Your task to perform on an android device: Go to wifi settings Image 0: 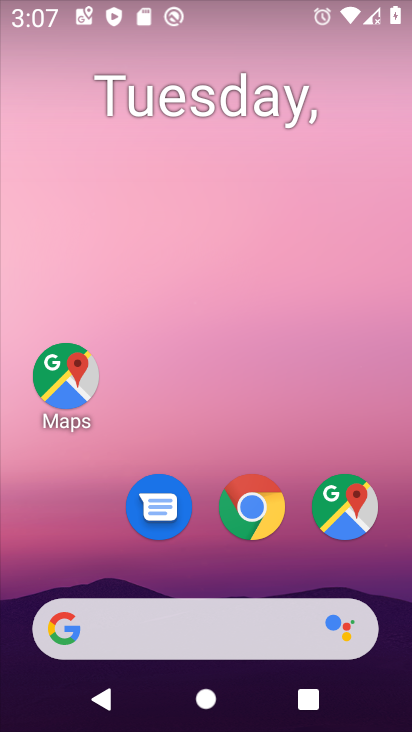
Step 0: drag from (319, 503) to (315, 214)
Your task to perform on an android device: Go to wifi settings Image 1: 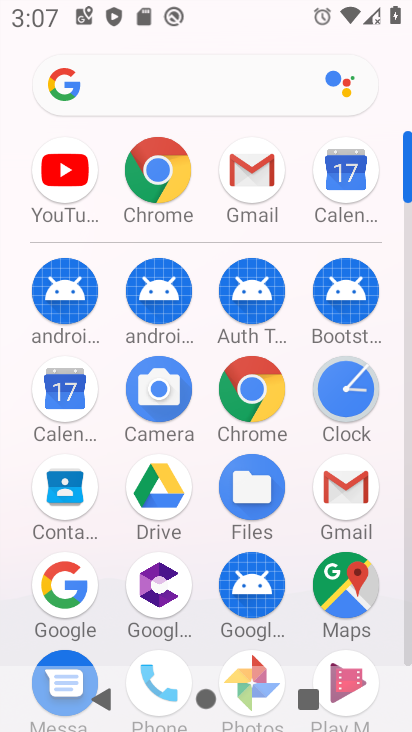
Step 1: drag from (293, 586) to (289, 314)
Your task to perform on an android device: Go to wifi settings Image 2: 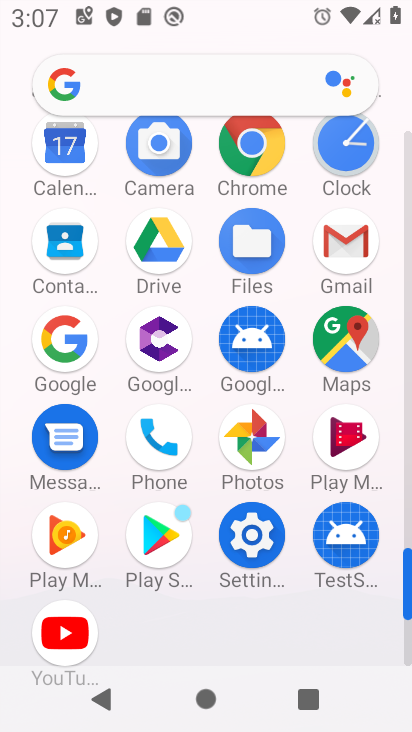
Step 2: click (240, 537)
Your task to perform on an android device: Go to wifi settings Image 3: 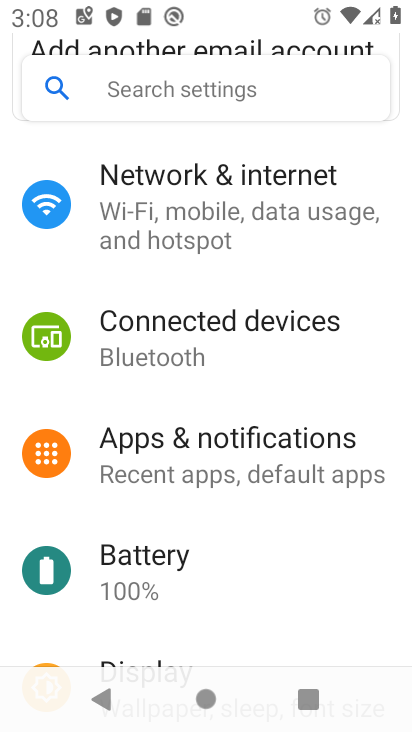
Step 3: click (178, 181)
Your task to perform on an android device: Go to wifi settings Image 4: 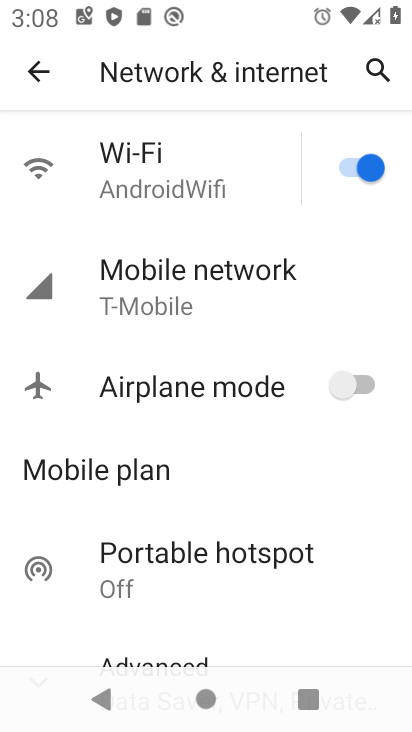
Step 4: task complete